Your task to perform on an android device: Open maps Image 0: 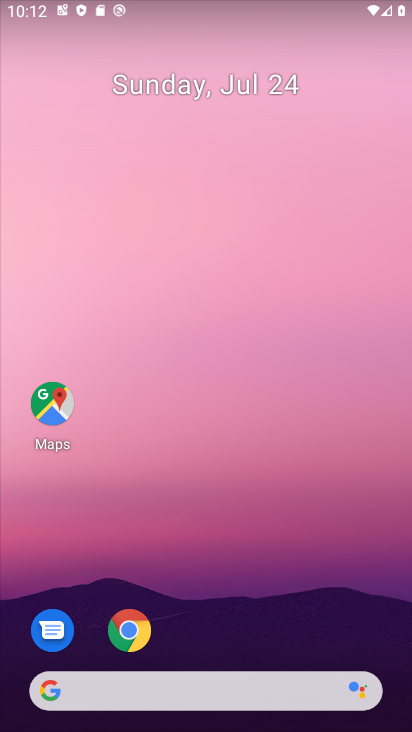
Step 0: click (42, 388)
Your task to perform on an android device: Open maps Image 1: 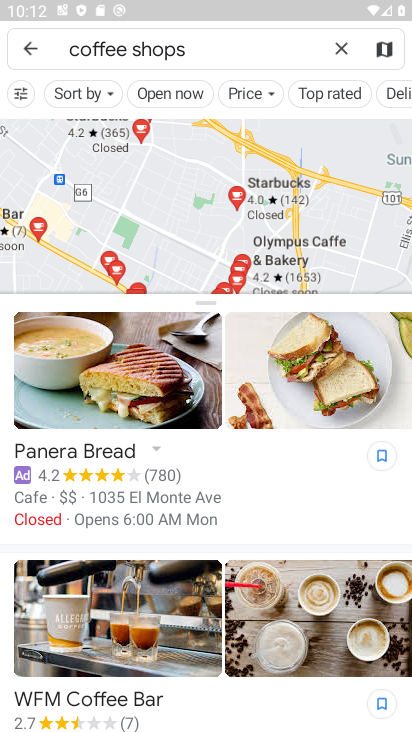
Step 1: task complete